Your task to perform on an android device: Open Google Chrome and click the shortcut for Amazon.com Image 0: 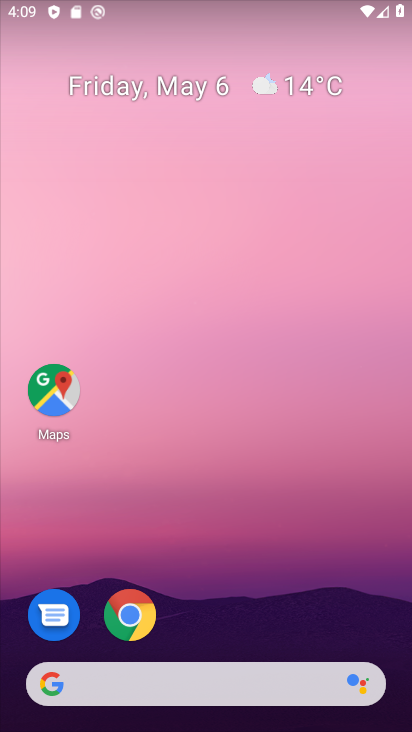
Step 0: click (151, 611)
Your task to perform on an android device: Open Google Chrome and click the shortcut for Amazon.com Image 1: 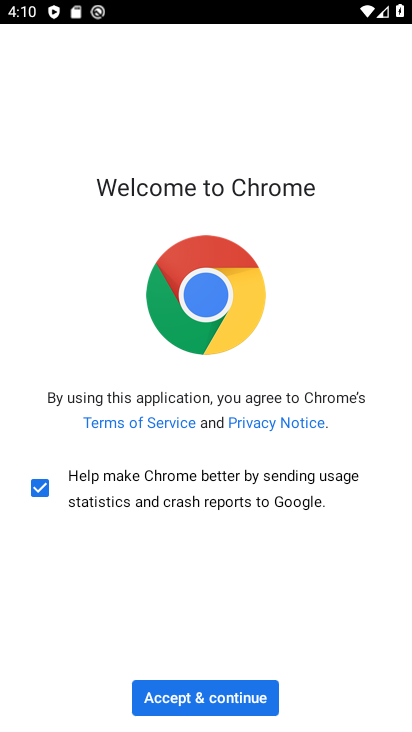
Step 1: click (191, 684)
Your task to perform on an android device: Open Google Chrome and click the shortcut for Amazon.com Image 2: 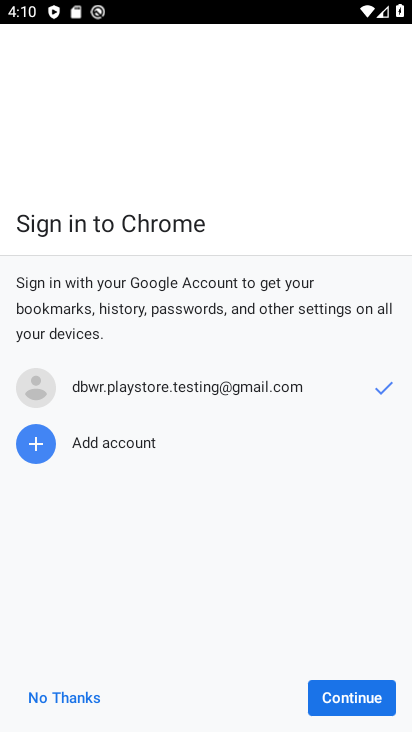
Step 2: click (322, 705)
Your task to perform on an android device: Open Google Chrome and click the shortcut for Amazon.com Image 3: 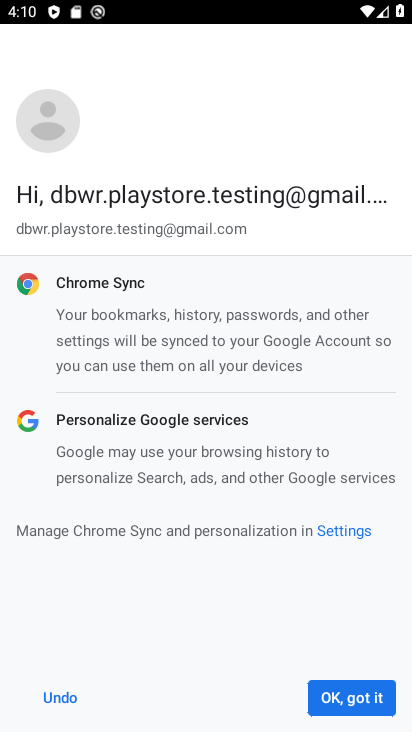
Step 3: click (322, 705)
Your task to perform on an android device: Open Google Chrome and click the shortcut for Amazon.com Image 4: 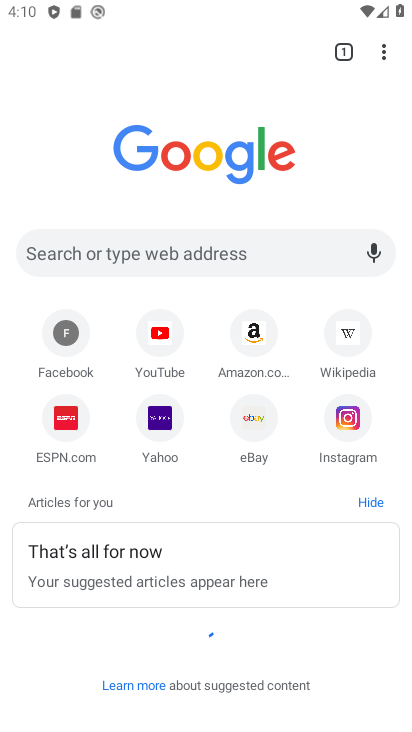
Step 4: click (249, 345)
Your task to perform on an android device: Open Google Chrome and click the shortcut for Amazon.com Image 5: 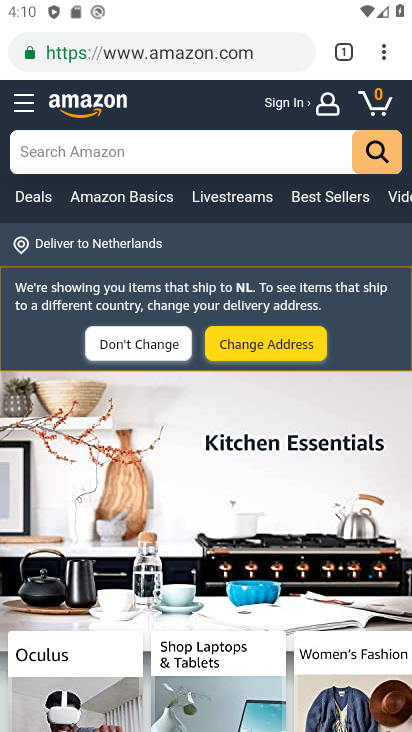
Step 5: task complete